Your task to perform on an android device: toggle translation in the chrome app Image 0: 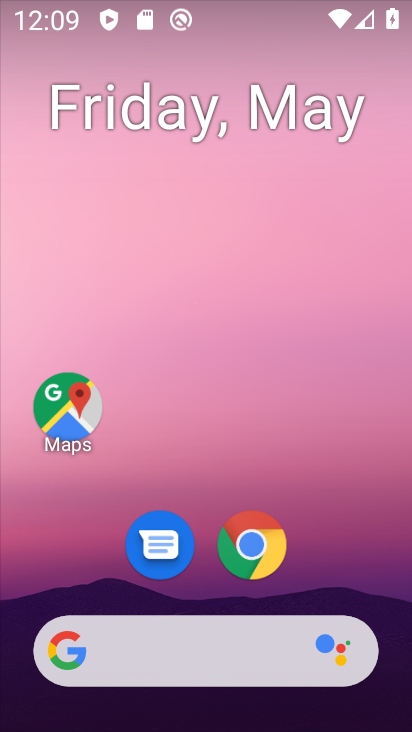
Step 0: click (246, 551)
Your task to perform on an android device: toggle translation in the chrome app Image 1: 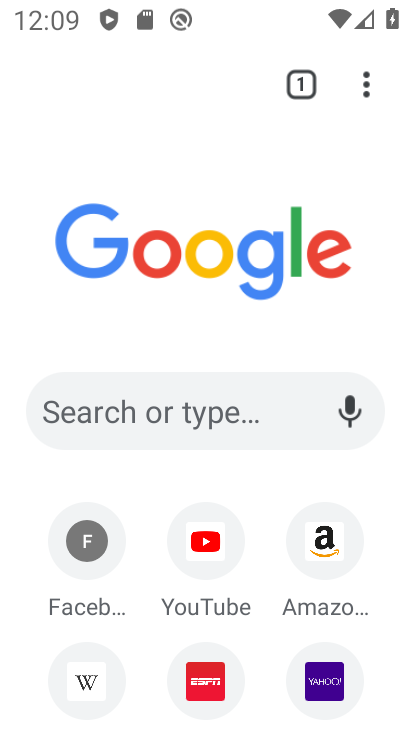
Step 1: click (365, 93)
Your task to perform on an android device: toggle translation in the chrome app Image 2: 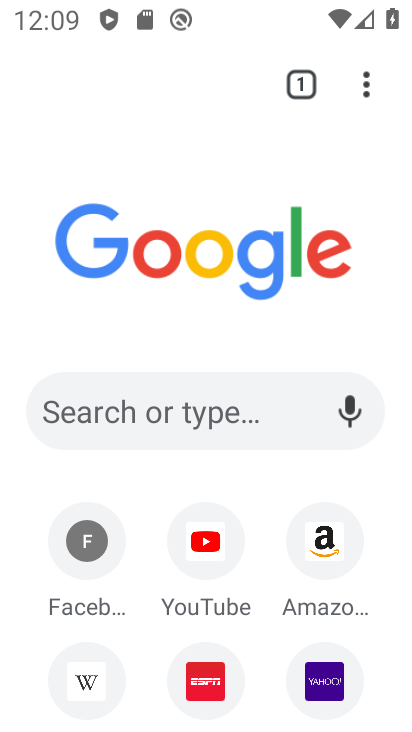
Step 2: click (366, 88)
Your task to perform on an android device: toggle translation in the chrome app Image 3: 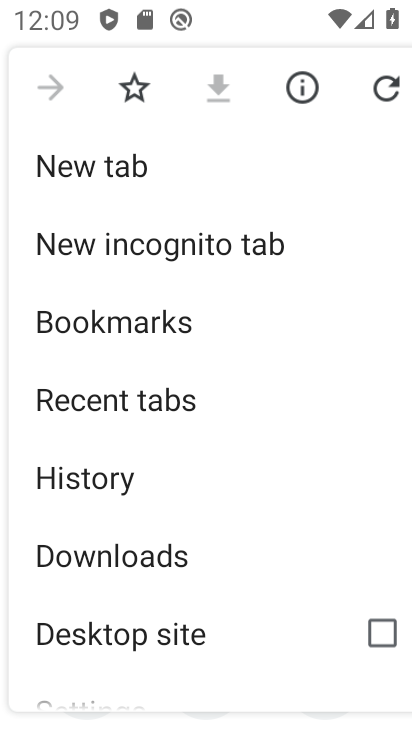
Step 3: drag from (158, 445) to (171, 197)
Your task to perform on an android device: toggle translation in the chrome app Image 4: 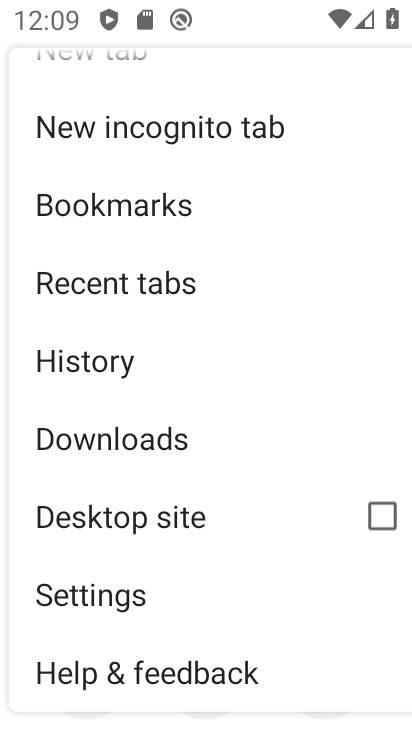
Step 4: click (116, 609)
Your task to perform on an android device: toggle translation in the chrome app Image 5: 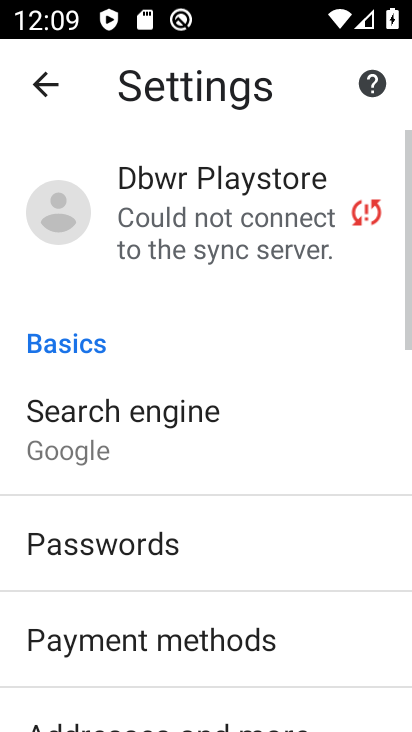
Step 5: drag from (167, 664) to (142, 198)
Your task to perform on an android device: toggle translation in the chrome app Image 6: 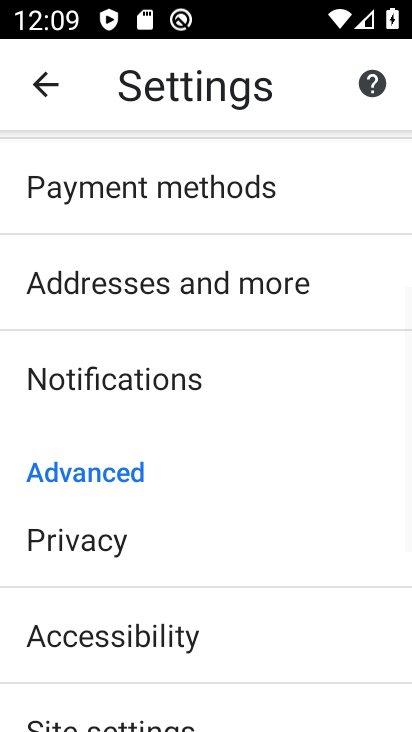
Step 6: drag from (185, 617) to (221, 183)
Your task to perform on an android device: toggle translation in the chrome app Image 7: 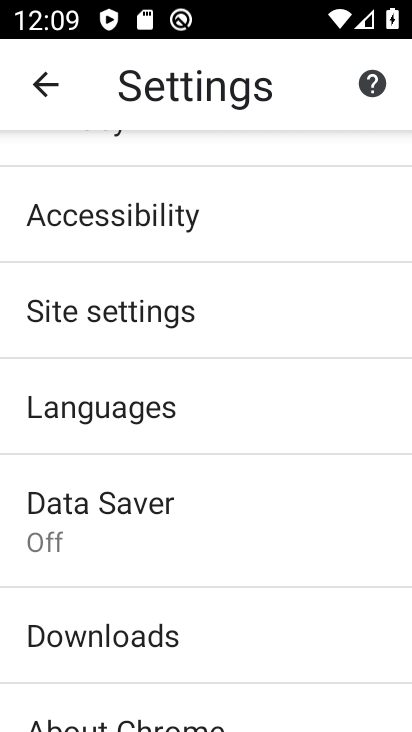
Step 7: click (97, 414)
Your task to perform on an android device: toggle translation in the chrome app Image 8: 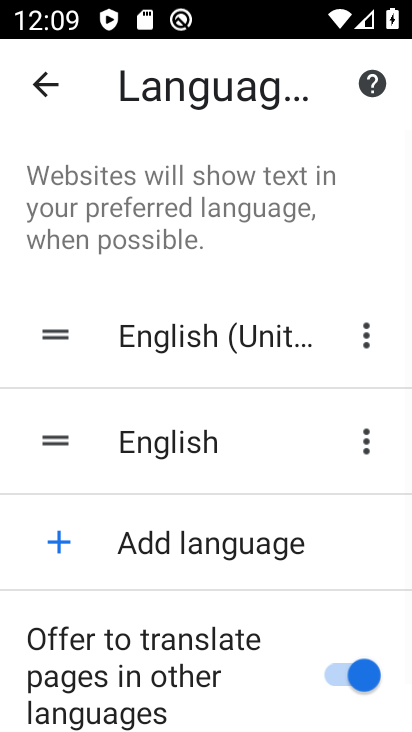
Step 8: click (337, 679)
Your task to perform on an android device: toggle translation in the chrome app Image 9: 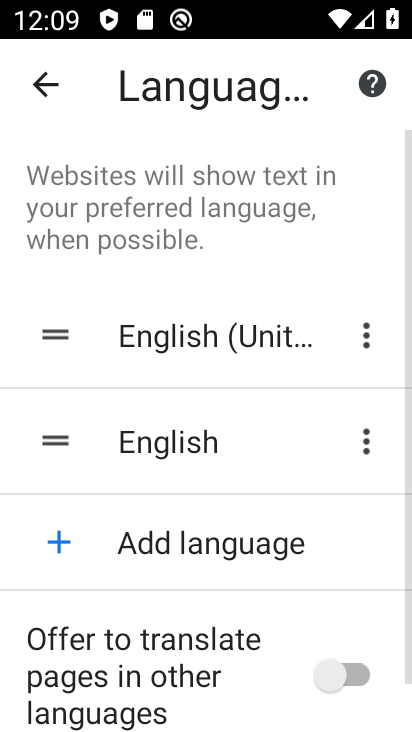
Step 9: task complete